Your task to perform on an android device: Search for seafood restaurants on Google Maps Image 0: 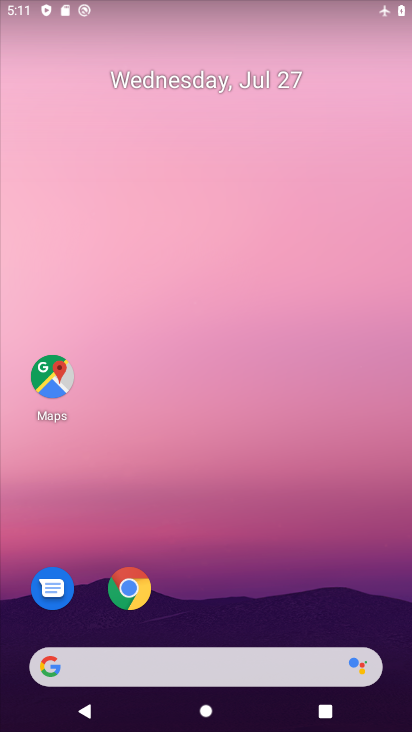
Step 0: drag from (318, 592) to (361, 121)
Your task to perform on an android device: Search for seafood restaurants on Google Maps Image 1: 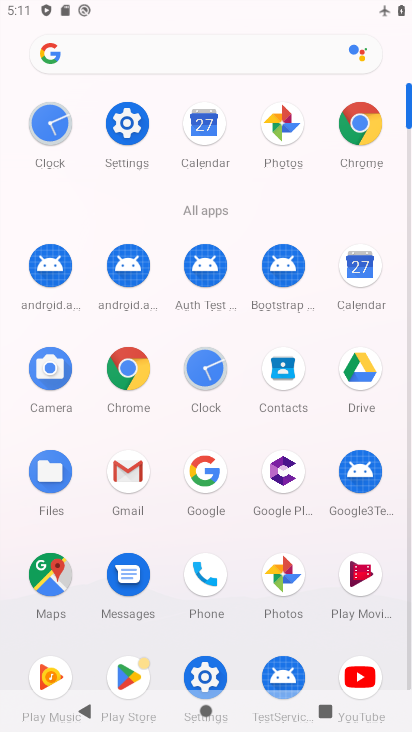
Step 1: click (43, 572)
Your task to perform on an android device: Search for seafood restaurants on Google Maps Image 2: 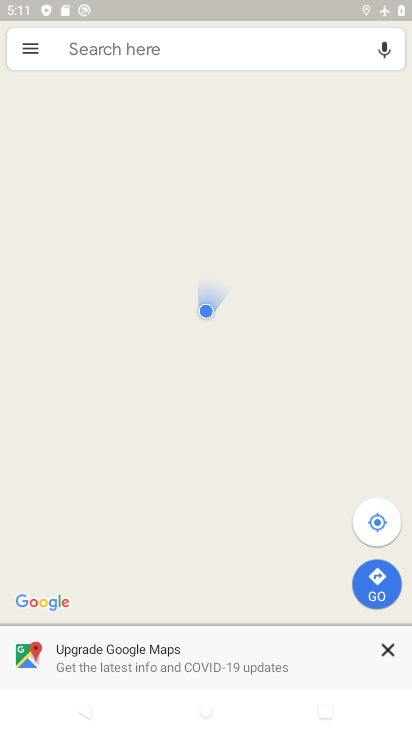
Step 2: click (212, 47)
Your task to perform on an android device: Search for seafood restaurants on Google Maps Image 3: 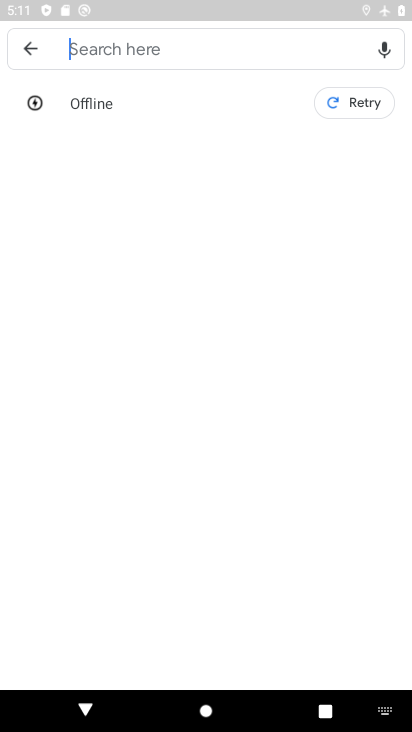
Step 3: type "seafood restaurant"
Your task to perform on an android device: Search for seafood restaurants on Google Maps Image 4: 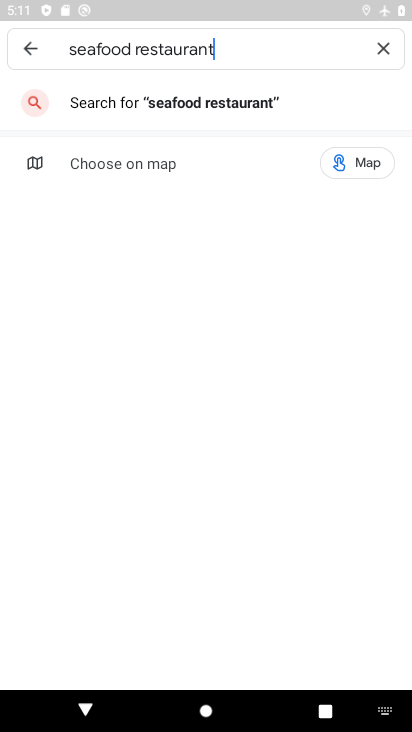
Step 4: task complete